Your task to perform on an android device: turn off wifi Image 0: 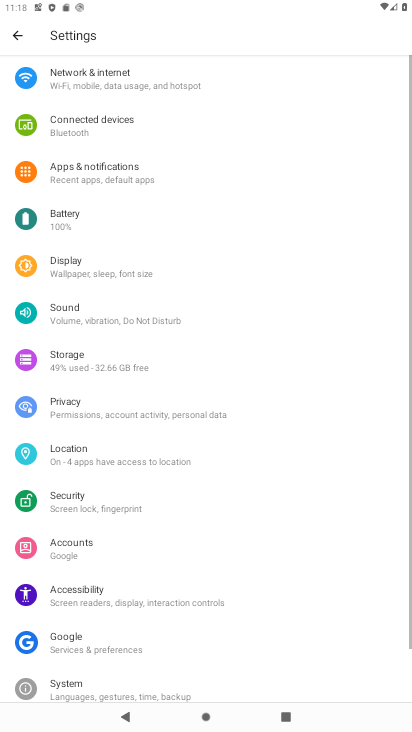
Step 0: press home button
Your task to perform on an android device: turn off wifi Image 1: 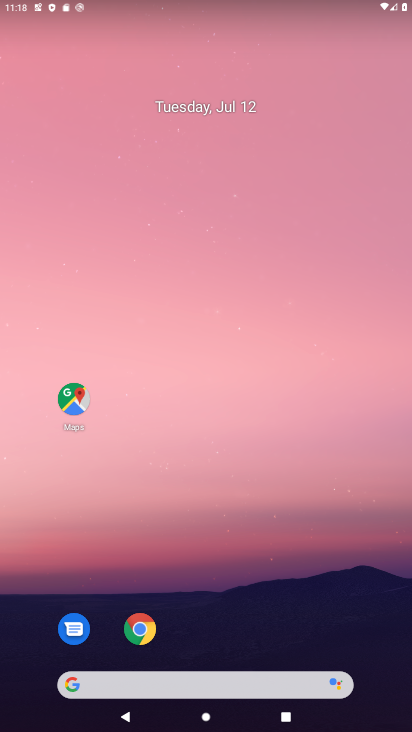
Step 1: drag from (169, 10) to (199, 543)
Your task to perform on an android device: turn off wifi Image 2: 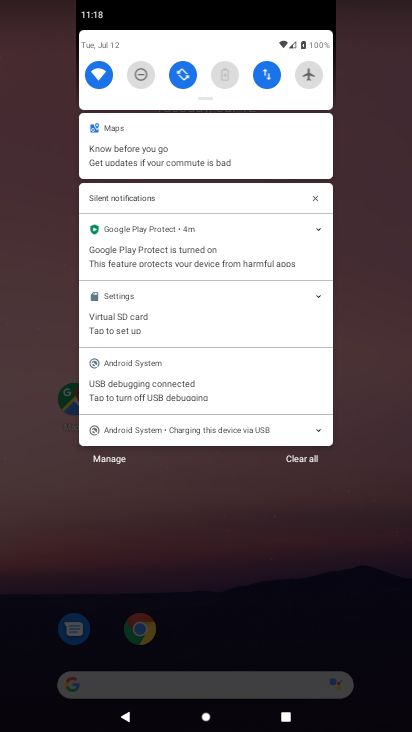
Step 2: click (98, 77)
Your task to perform on an android device: turn off wifi Image 3: 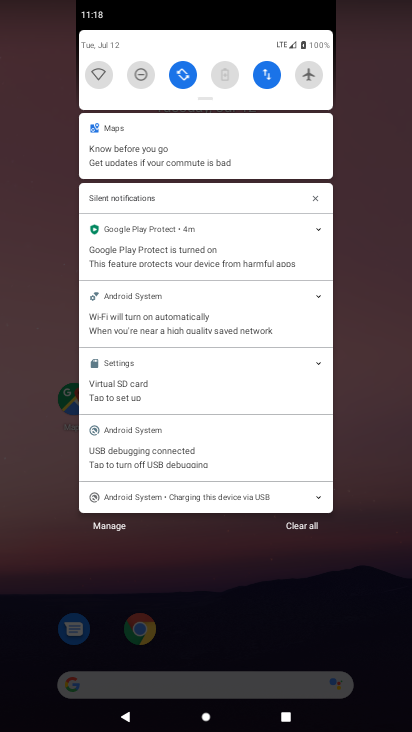
Step 3: task complete